Your task to perform on an android device: allow notifications from all sites in the chrome app Image 0: 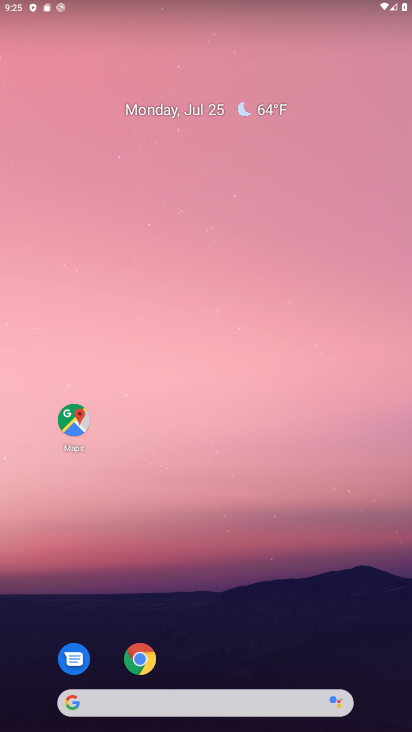
Step 0: drag from (324, 574) to (339, 89)
Your task to perform on an android device: allow notifications from all sites in the chrome app Image 1: 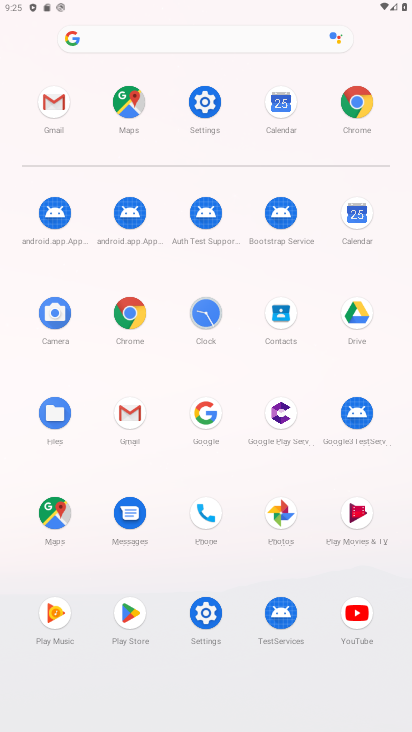
Step 1: click (361, 111)
Your task to perform on an android device: allow notifications from all sites in the chrome app Image 2: 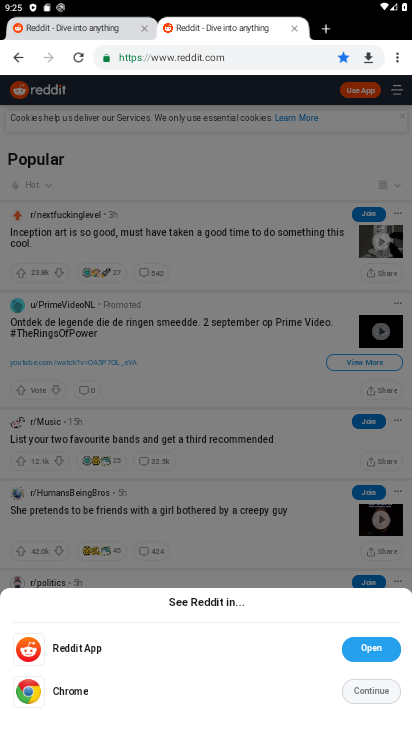
Step 2: click (403, 46)
Your task to perform on an android device: allow notifications from all sites in the chrome app Image 3: 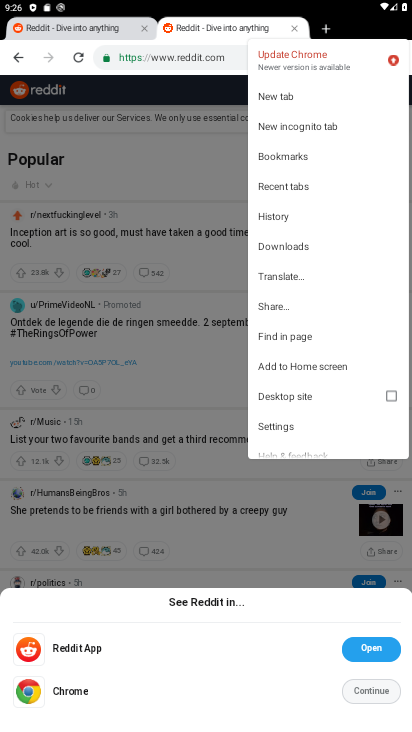
Step 3: click (304, 420)
Your task to perform on an android device: allow notifications from all sites in the chrome app Image 4: 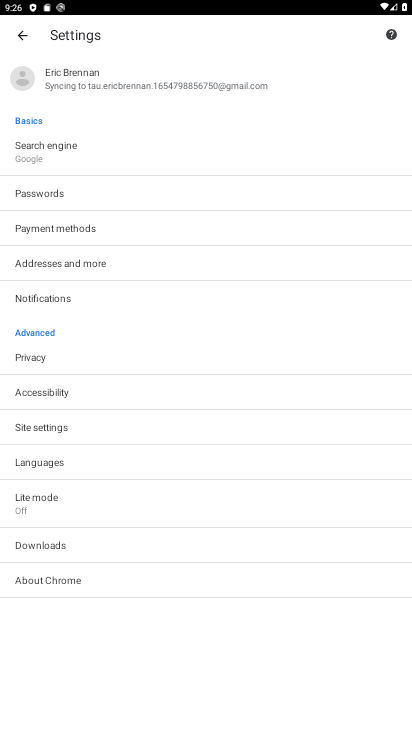
Step 4: click (185, 428)
Your task to perform on an android device: allow notifications from all sites in the chrome app Image 5: 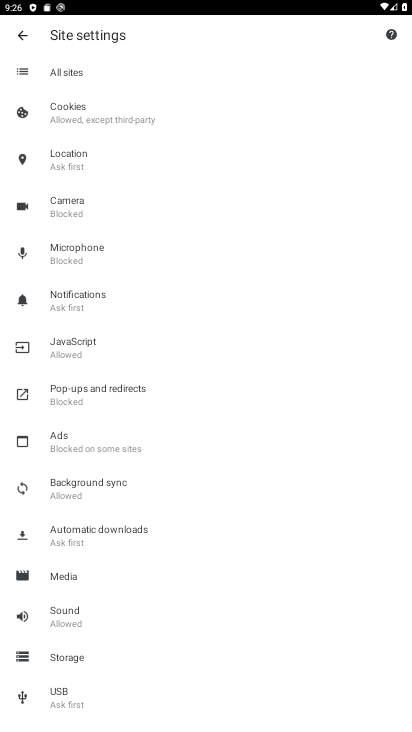
Step 5: click (93, 293)
Your task to perform on an android device: allow notifications from all sites in the chrome app Image 6: 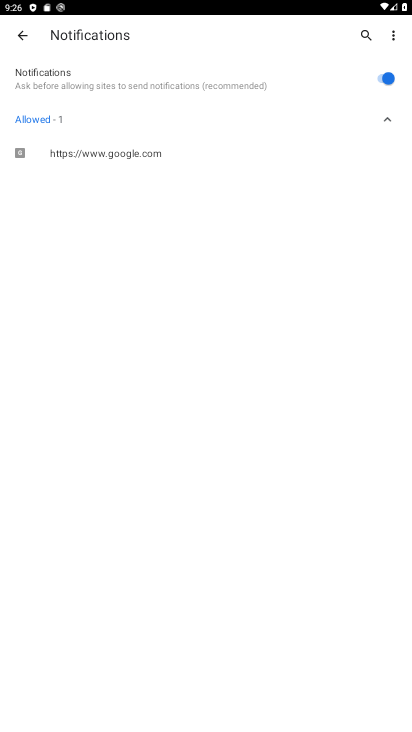
Step 6: task complete